Your task to perform on an android device: turn off javascript in the chrome app Image 0: 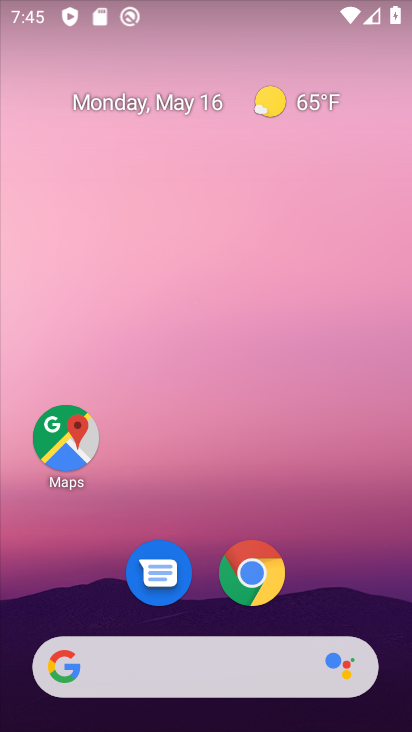
Step 0: click (266, 581)
Your task to perform on an android device: turn off javascript in the chrome app Image 1: 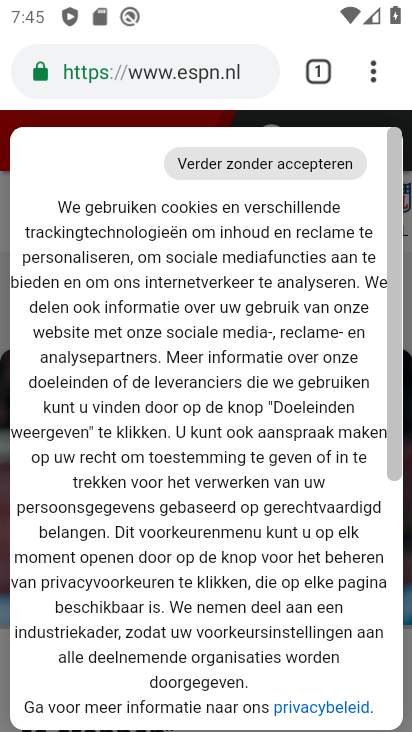
Step 1: click (373, 99)
Your task to perform on an android device: turn off javascript in the chrome app Image 2: 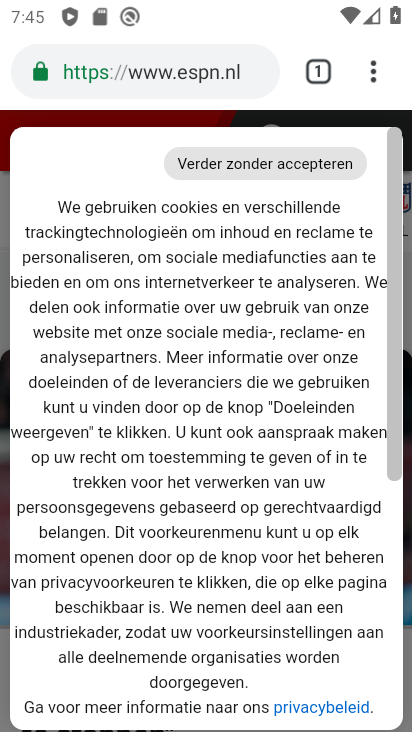
Step 2: click (369, 74)
Your task to perform on an android device: turn off javascript in the chrome app Image 3: 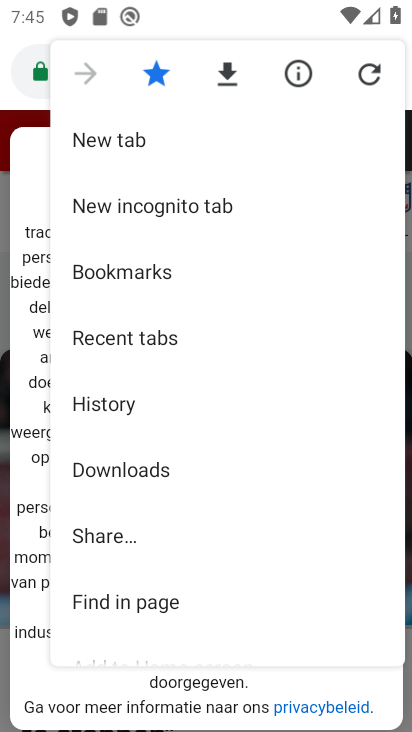
Step 3: drag from (110, 604) to (115, 529)
Your task to perform on an android device: turn off javascript in the chrome app Image 4: 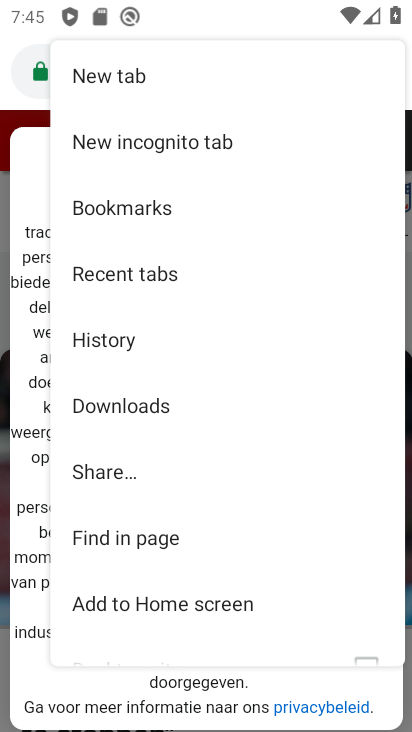
Step 4: drag from (134, 616) to (146, 548)
Your task to perform on an android device: turn off javascript in the chrome app Image 5: 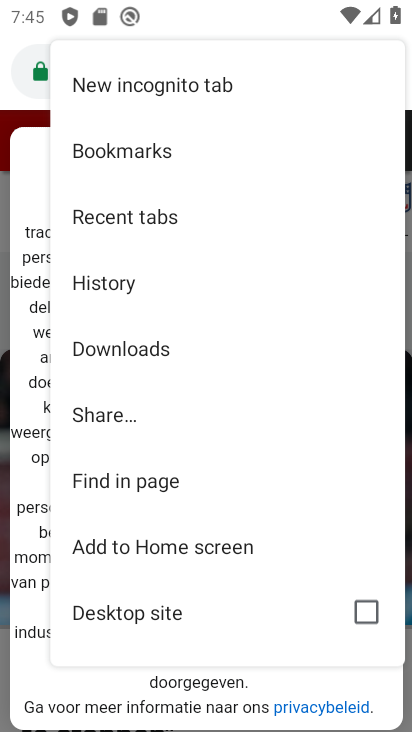
Step 5: drag from (187, 630) to (187, 556)
Your task to perform on an android device: turn off javascript in the chrome app Image 6: 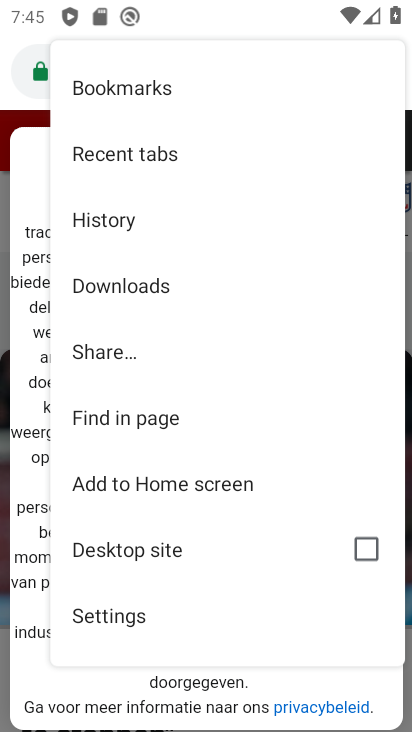
Step 6: click (173, 620)
Your task to perform on an android device: turn off javascript in the chrome app Image 7: 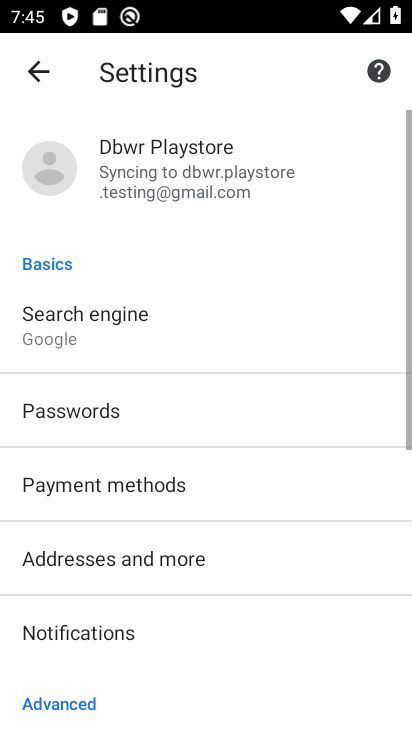
Step 7: drag from (171, 619) to (170, 517)
Your task to perform on an android device: turn off javascript in the chrome app Image 8: 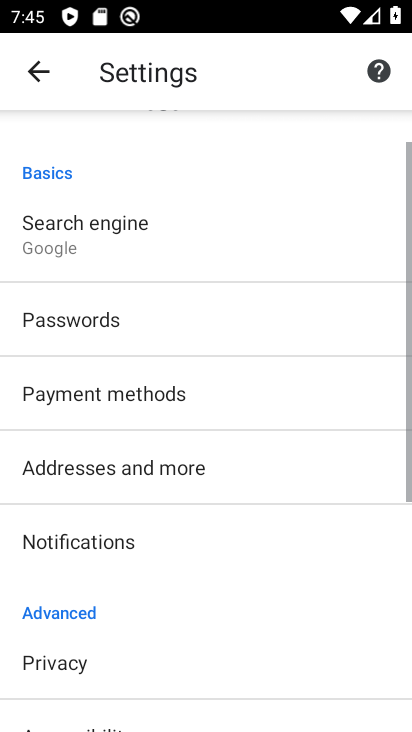
Step 8: drag from (121, 631) to (146, 529)
Your task to perform on an android device: turn off javascript in the chrome app Image 9: 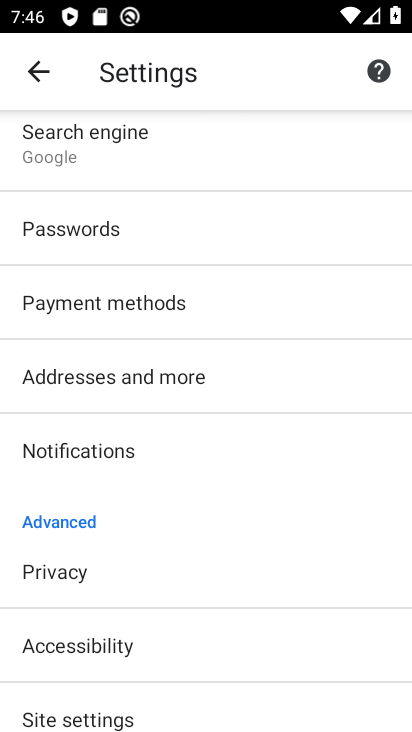
Step 9: drag from (124, 638) to (152, 462)
Your task to perform on an android device: turn off javascript in the chrome app Image 10: 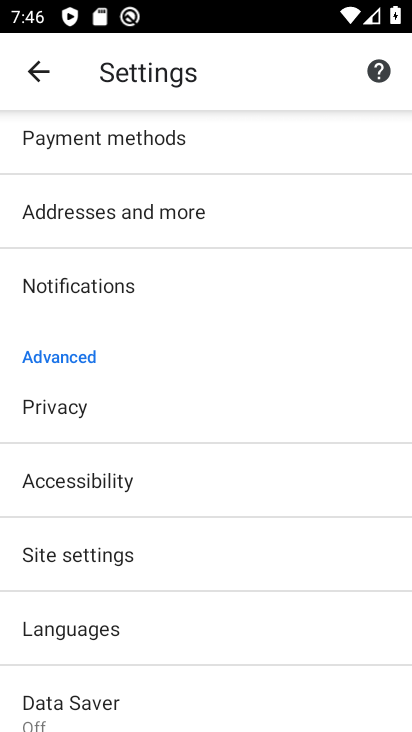
Step 10: click (92, 563)
Your task to perform on an android device: turn off javascript in the chrome app Image 11: 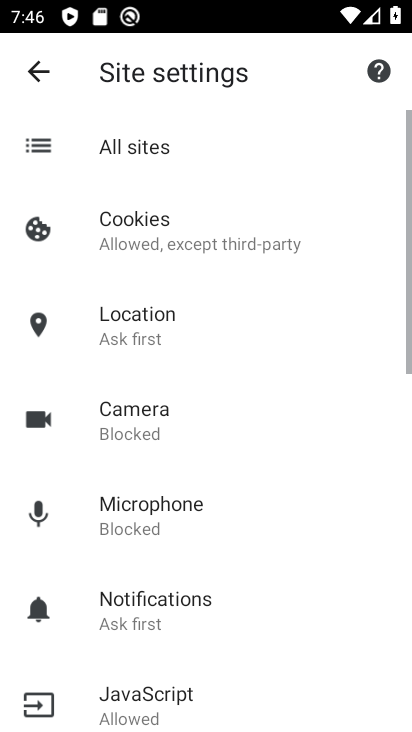
Step 11: drag from (111, 613) to (122, 544)
Your task to perform on an android device: turn off javascript in the chrome app Image 12: 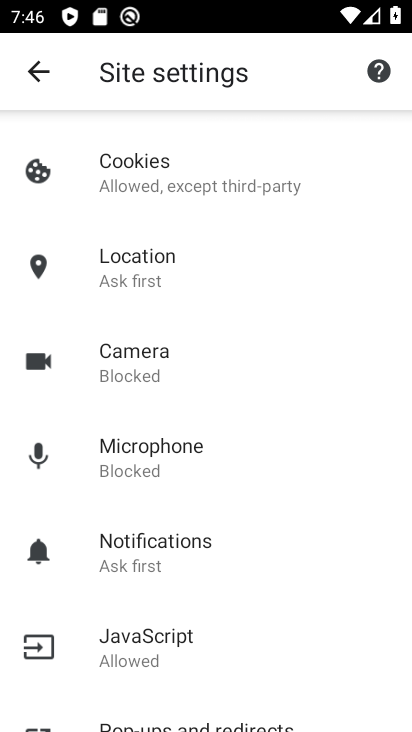
Step 12: click (130, 664)
Your task to perform on an android device: turn off javascript in the chrome app Image 13: 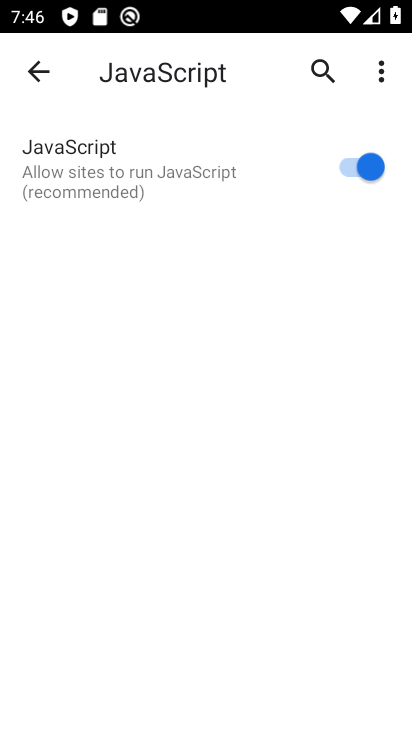
Step 13: click (347, 161)
Your task to perform on an android device: turn off javascript in the chrome app Image 14: 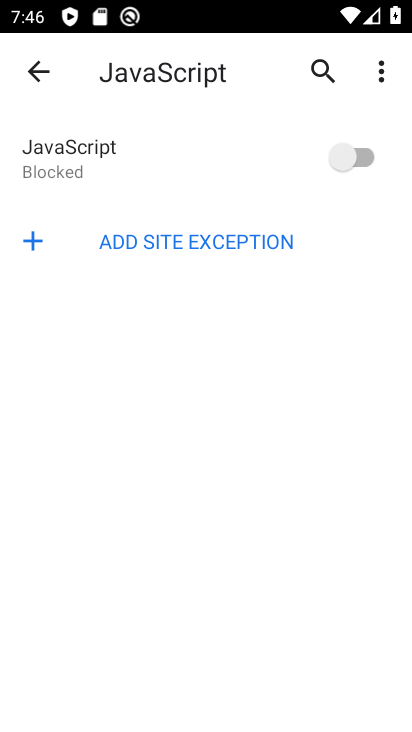
Step 14: task complete